Your task to perform on an android device: Look up the book "The Girl on the Train". Image 0: 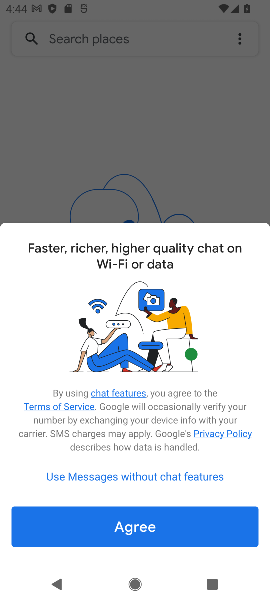
Step 0: press home button
Your task to perform on an android device: Look up the book "The Girl on the Train". Image 1: 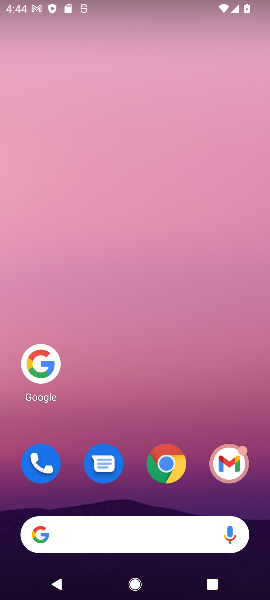
Step 1: drag from (90, 481) to (127, 461)
Your task to perform on an android device: Look up the book "The Girl on the Train". Image 2: 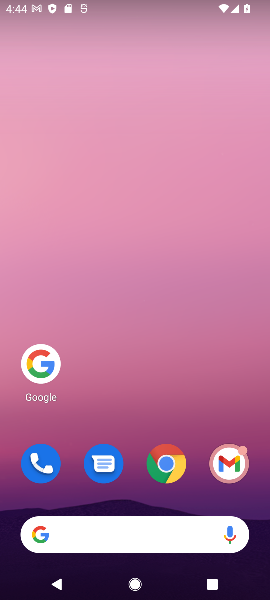
Step 2: click (35, 353)
Your task to perform on an android device: Look up the book "The Girl on the Train". Image 3: 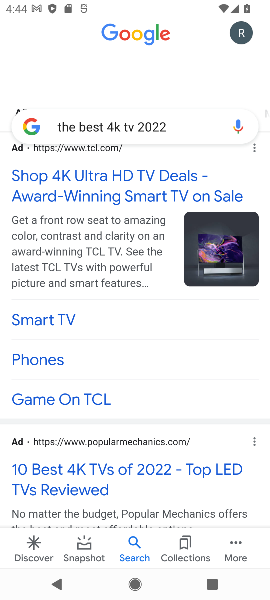
Step 3: click (204, 117)
Your task to perform on an android device: Look up the book "The Girl on the Train". Image 4: 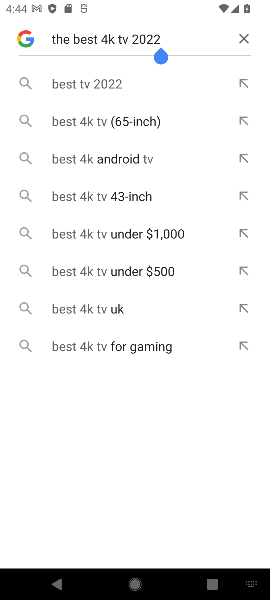
Step 4: click (243, 33)
Your task to perform on an android device: Look up the book "The Girl on the Train". Image 5: 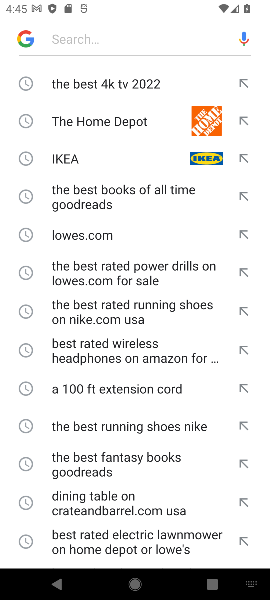
Step 5: click (142, 18)
Your task to perform on an android device: Look up the book "The Girl on the Train". Image 6: 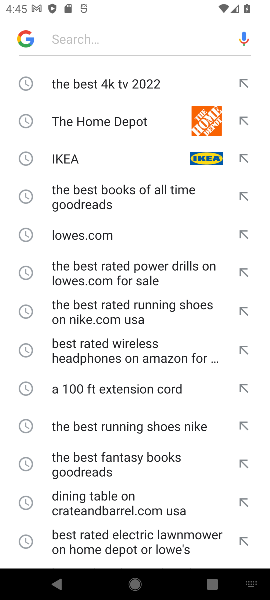
Step 6: type "The Girl on the Train"
Your task to perform on an android device: Look up the book "The Girl on the Train". Image 7: 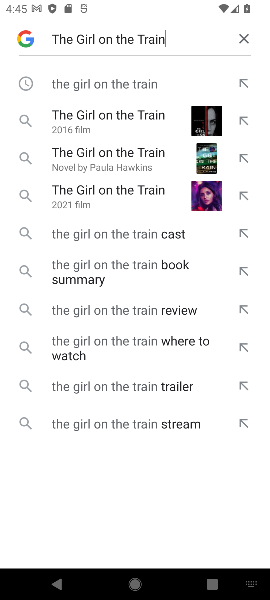
Step 7: type "The Girl on the Train "
Your task to perform on an android device: Look up the book "The Girl on the Train". Image 8: 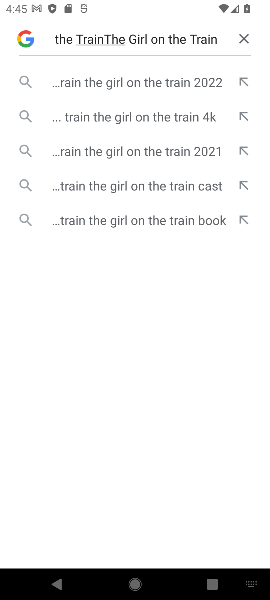
Step 8: click (144, 76)
Your task to perform on an android device: Look up the book "The Girl on the Train". Image 9: 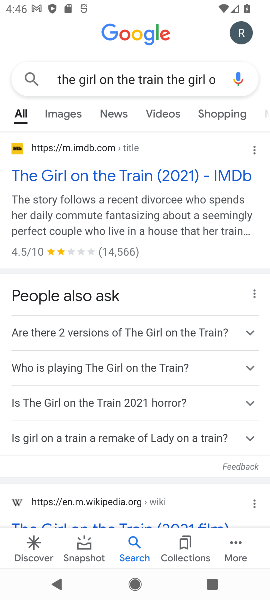
Step 9: task complete